Your task to perform on an android device: read, delete, or share a saved page in the chrome app Image 0: 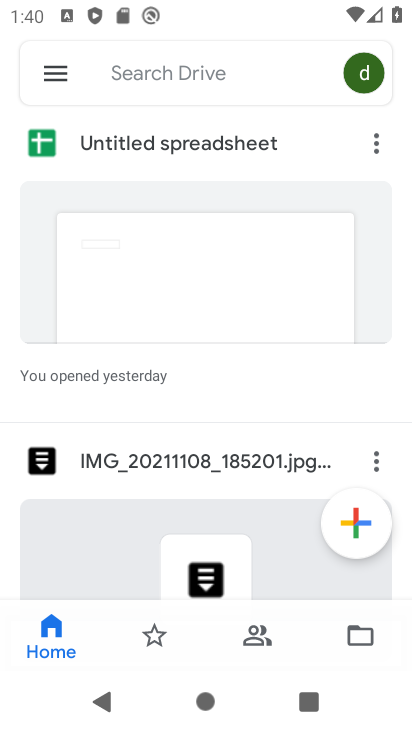
Step 0: press home button
Your task to perform on an android device: read, delete, or share a saved page in the chrome app Image 1: 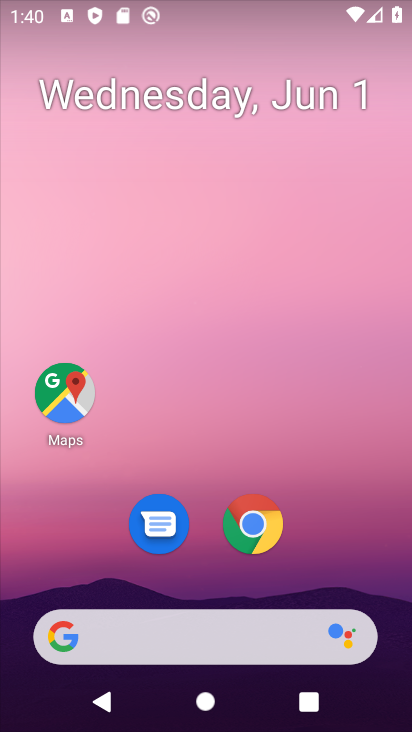
Step 1: click (256, 528)
Your task to perform on an android device: read, delete, or share a saved page in the chrome app Image 2: 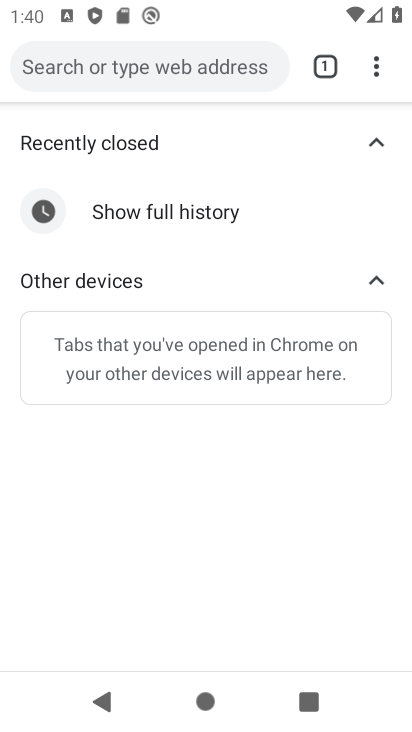
Step 2: click (371, 66)
Your task to perform on an android device: read, delete, or share a saved page in the chrome app Image 3: 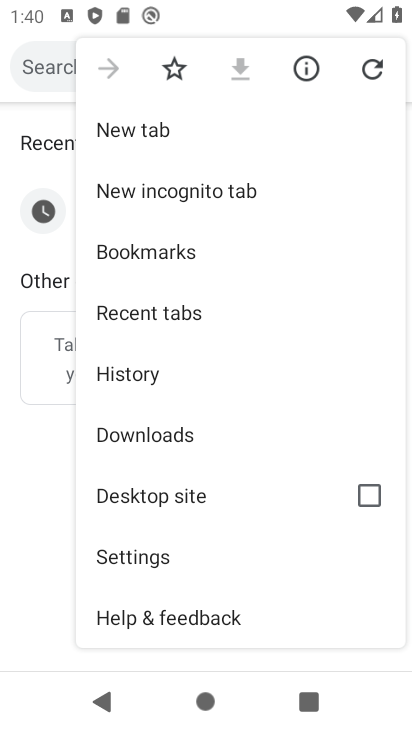
Step 3: click (176, 428)
Your task to perform on an android device: read, delete, or share a saved page in the chrome app Image 4: 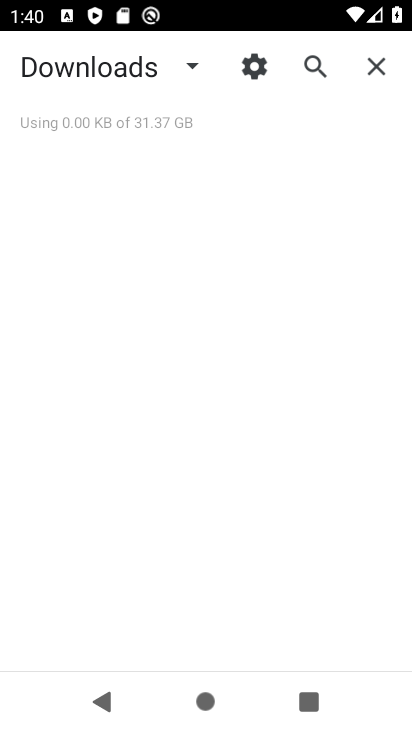
Step 4: task complete